Your task to perform on an android device: Do I have any events this weekend? Image 0: 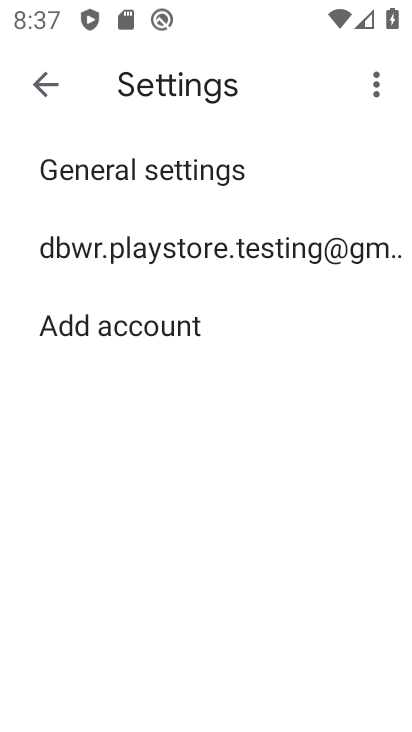
Step 0: click (336, 220)
Your task to perform on an android device: Do I have any events this weekend? Image 1: 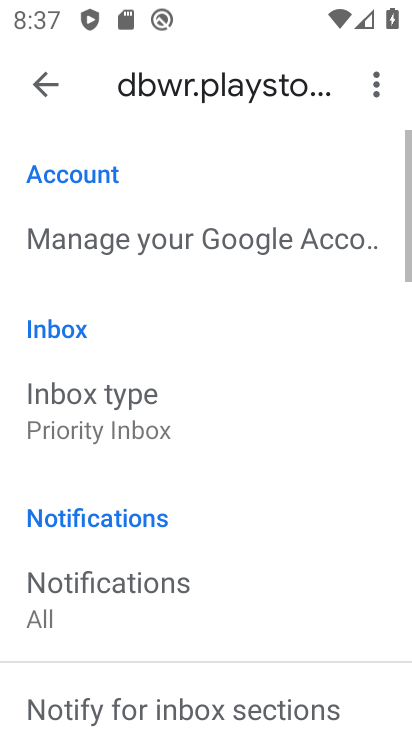
Step 1: press home button
Your task to perform on an android device: Do I have any events this weekend? Image 2: 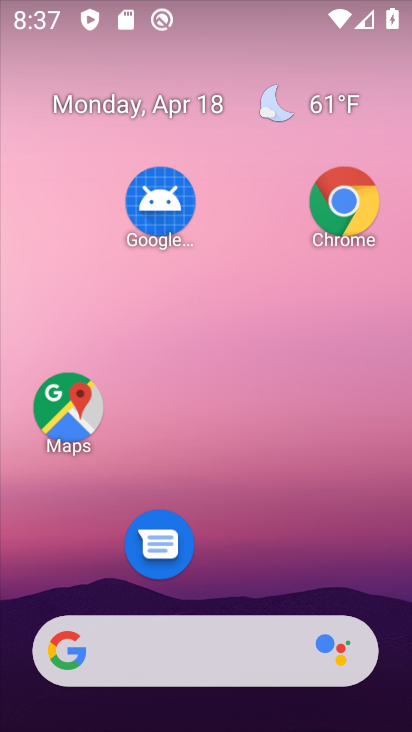
Step 2: drag from (230, 590) to (163, 60)
Your task to perform on an android device: Do I have any events this weekend? Image 3: 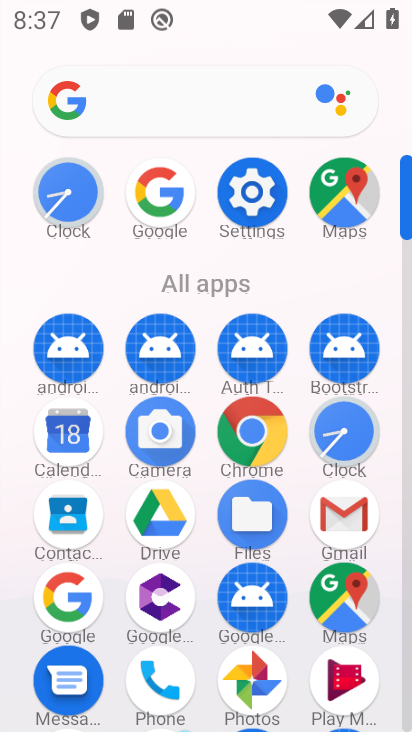
Step 3: click (46, 431)
Your task to perform on an android device: Do I have any events this weekend? Image 4: 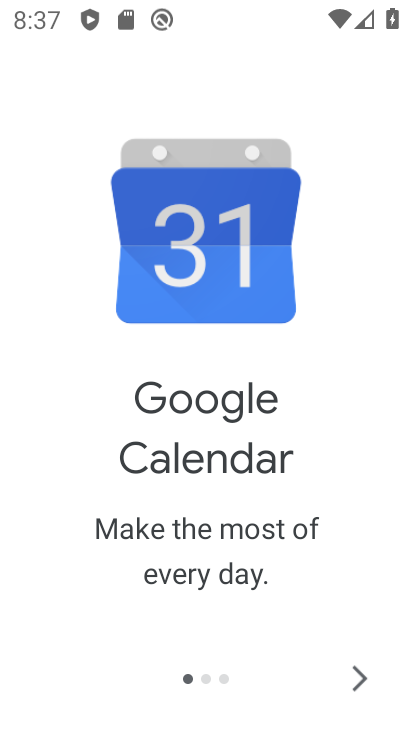
Step 4: click (363, 669)
Your task to perform on an android device: Do I have any events this weekend? Image 5: 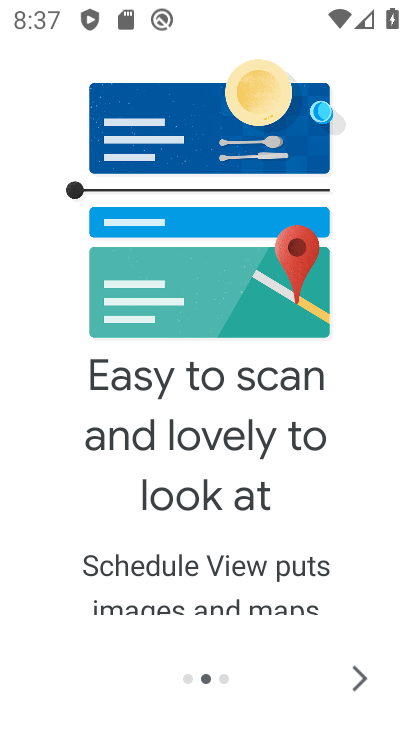
Step 5: click (347, 671)
Your task to perform on an android device: Do I have any events this weekend? Image 6: 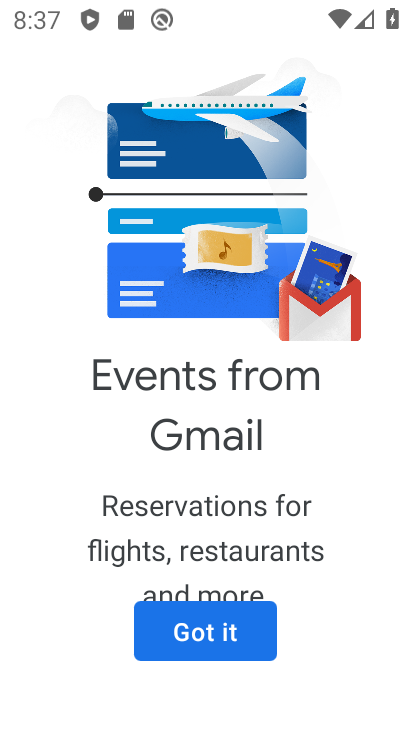
Step 6: click (238, 624)
Your task to perform on an android device: Do I have any events this weekend? Image 7: 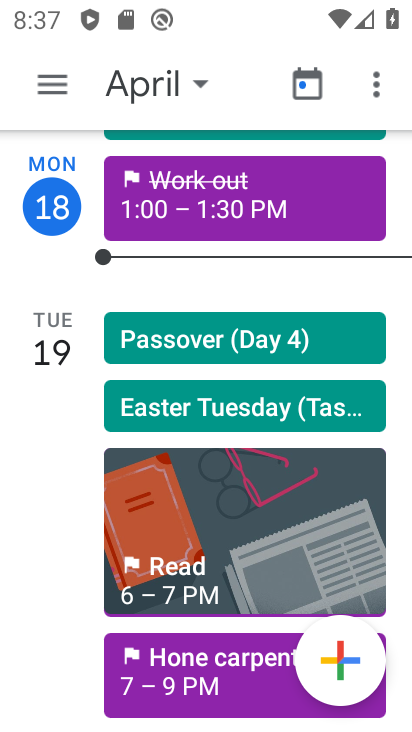
Step 7: click (46, 96)
Your task to perform on an android device: Do I have any events this weekend? Image 8: 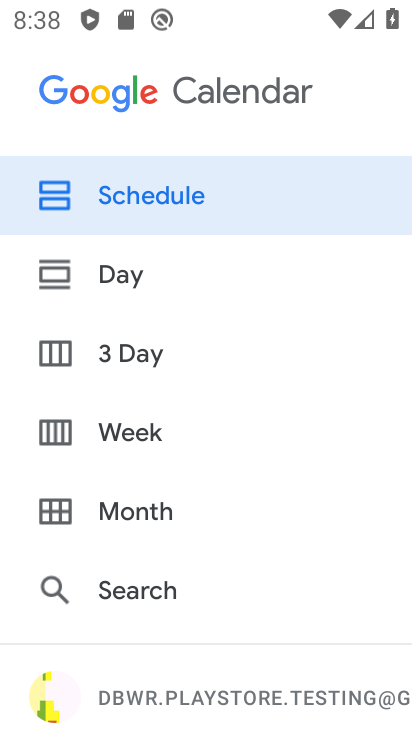
Step 8: click (138, 432)
Your task to perform on an android device: Do I have any events this weekend? Image 9: 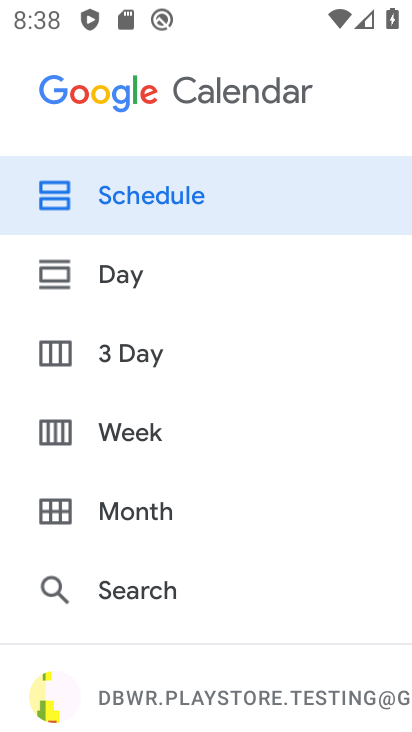
Step 9: click (129, 428)
Your task to perform on an android device: Do I have any events this weekend? Image 10: 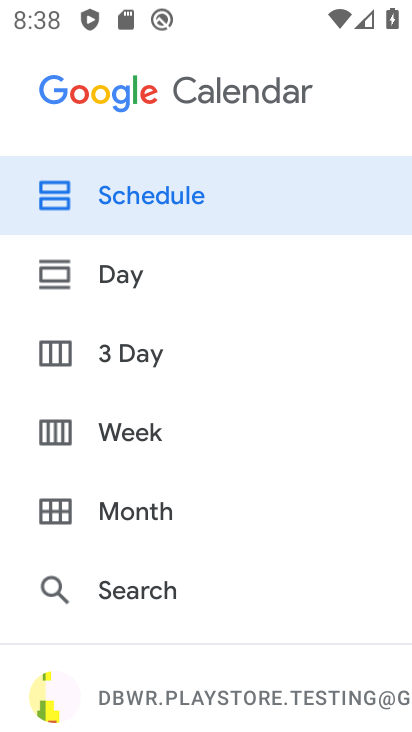
Step 10: click (128, 428)
Your task to perform on an android device: Do I have any events this weekend? Image 11: 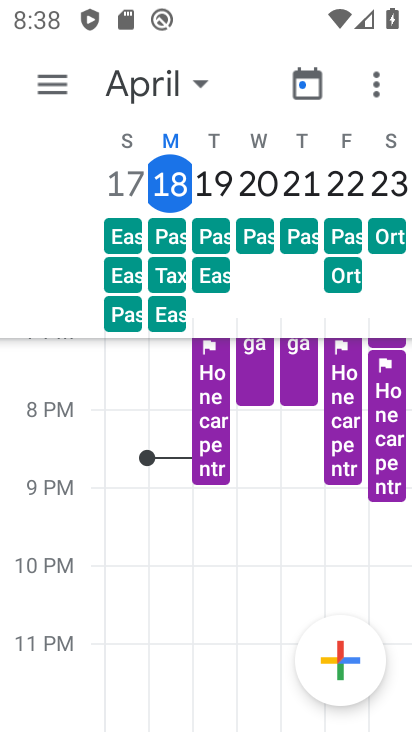
Step 11: task complete